Your task to perform on an android device: What's on my calendar today? Image 0: 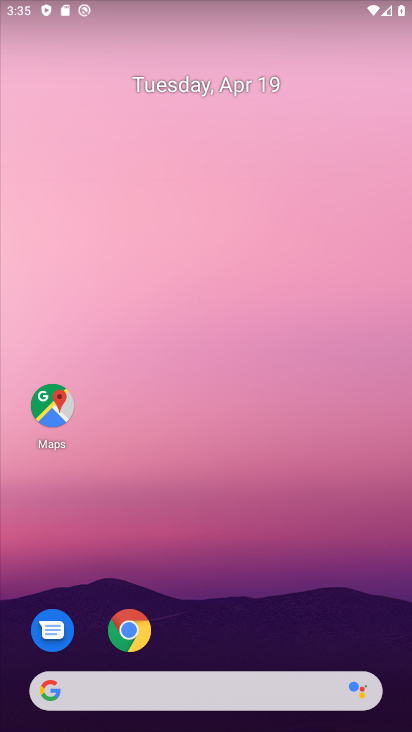
Step 0: drag from (393, 613) to (301, 98)
Your task to perform on an android device: What's on my calendar today? Image 1: 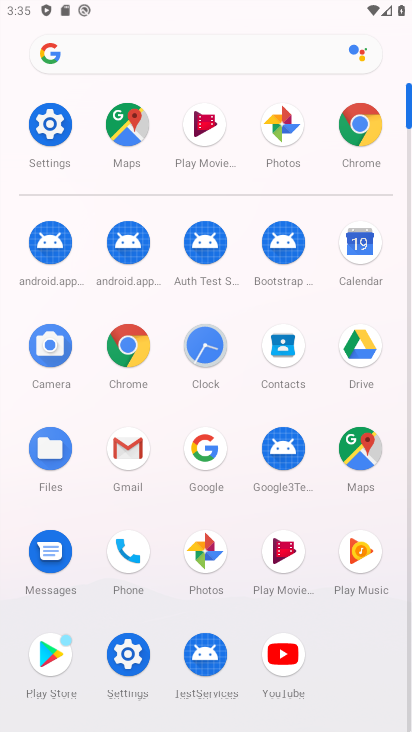
Step 1: click (357, 239)
Your task to perform on an android device: What's on my calendar today? Image 2: 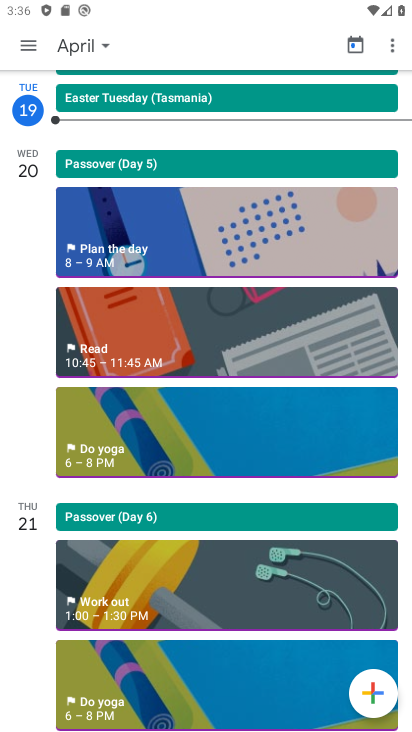
Step 2: click (57, 47)
Your task to perform on an android device: What's on my calendar today? Image 3: 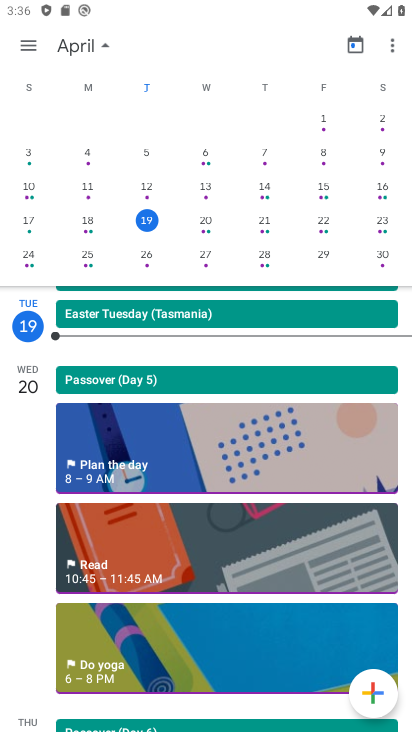
Step 3: click (143, 222)
Your task to perform on an android device: What's on my calendar today? Image 4: 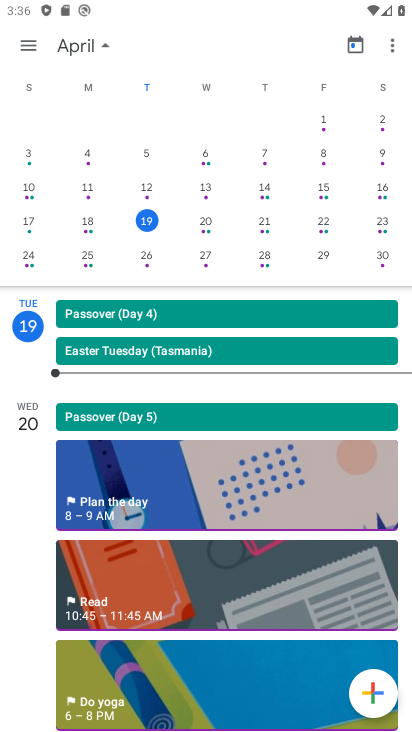
Step 4: task complete